Your task to perform on an android device: turn on priority inbox in the gmail app Image 0: 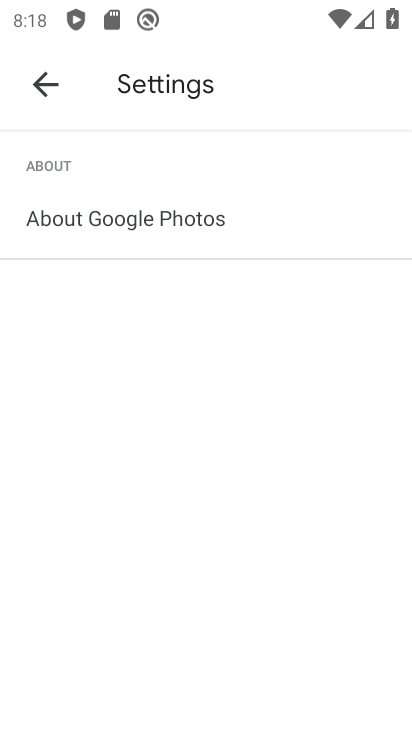
Step 0: press home button
Your task to perform on an android device: turn on priority inbox in the gmail app Image 1: 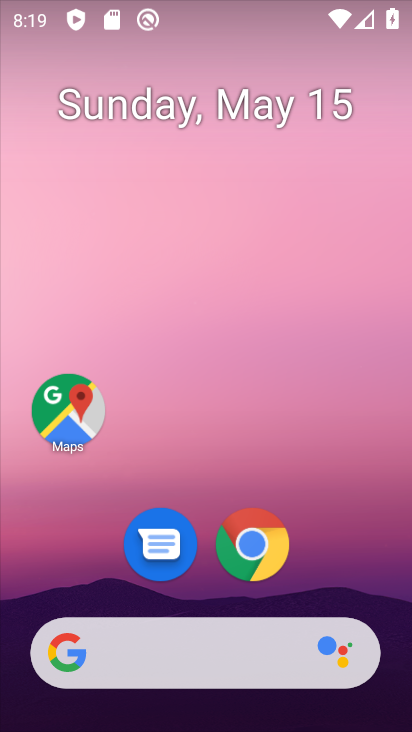
Step 1: drag from (321, 585) to (318, 181)
Your task to perform on an android device: turn on priority inbox in the gmail app Image 2: 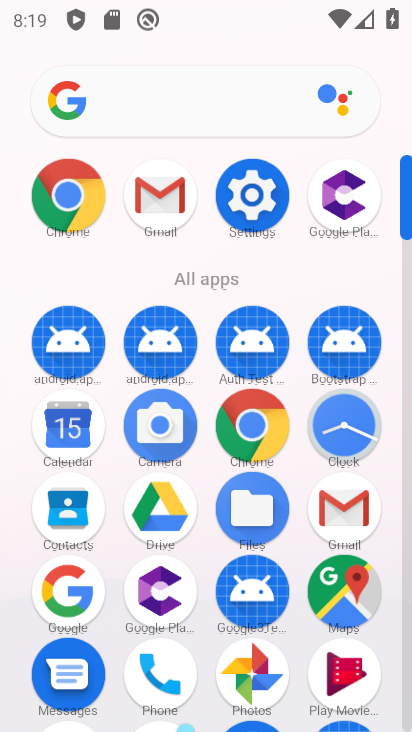
Step 2: click (344, 503)
Your task to perform on an android device: turn on priority inbox in the gmail app Image 3: 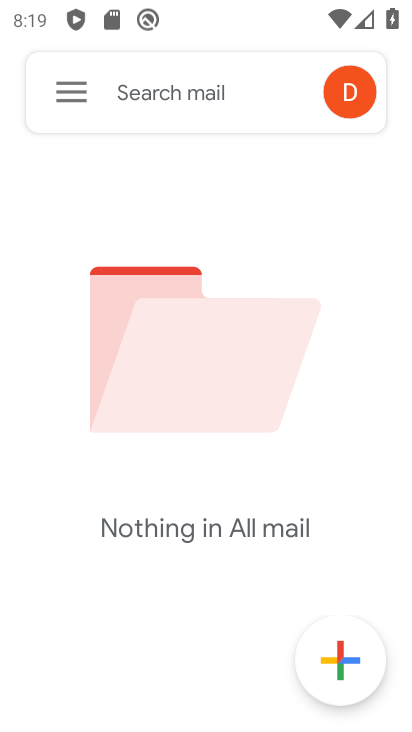
Step 3: click (69, 103)
Your task to perform on an android device: turn on priority inbox in the gmail app Image 4: 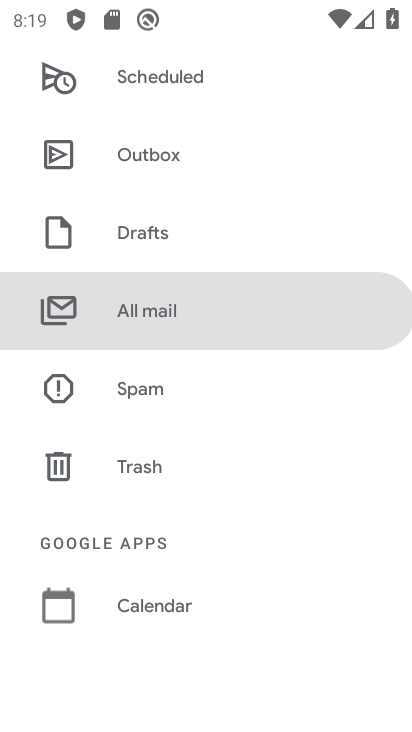
Step 4: drag from (183, 594) to (165, 402)
Your task to perform on an android device: turn on priority inbox in the gmail app Image 5: 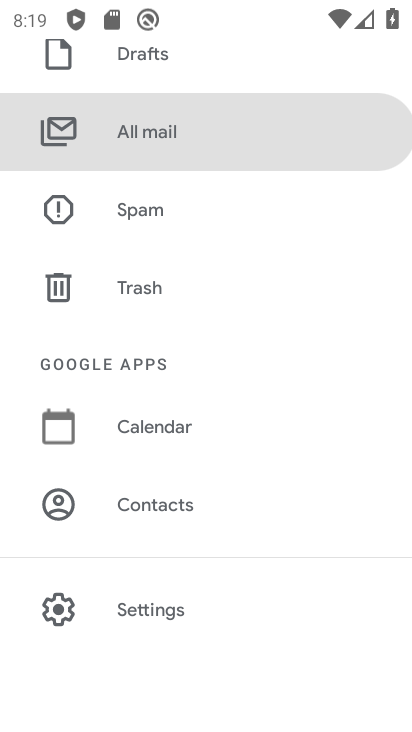
Step 5: click (152, 608)
Your task to perform on an android device: turn on priority inbox in the gmail app Image 6: 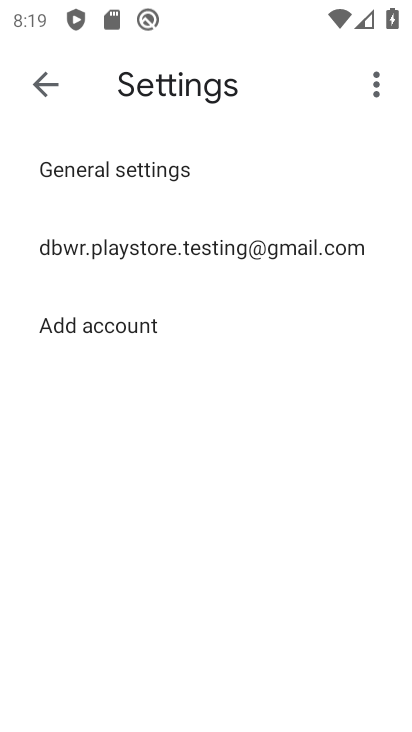
Step 6: click (167, 257)
Your task to perform on an android device: turn on priority inbox in the gmail app Image 7: 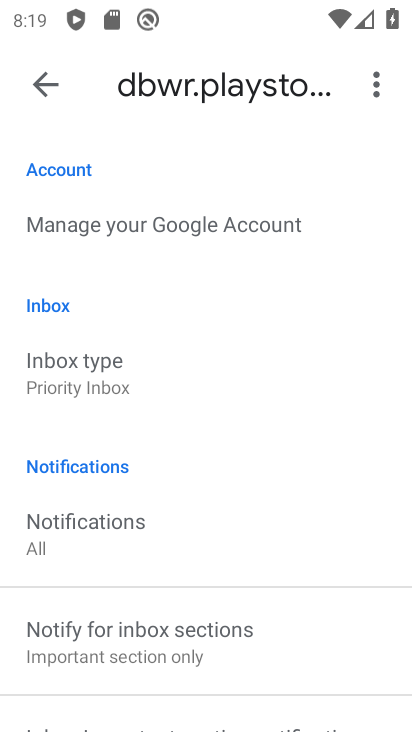
Step 7: click (69, 379)
Your task to perform on an android device: turn on priority inbox in the gmail app Image 8: 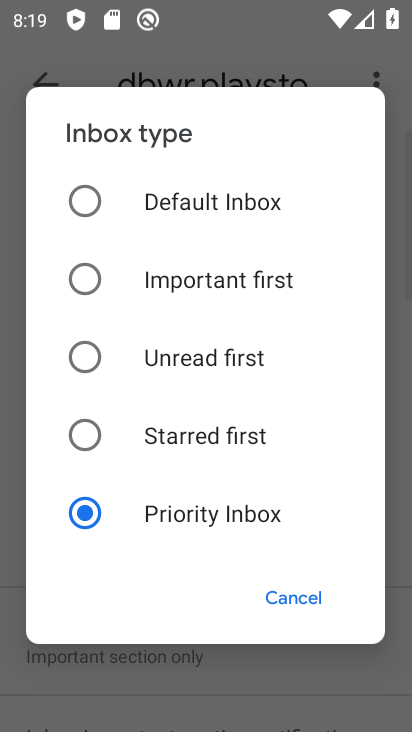
Step 8: click (178, 522)
Your task to perform on an android device: turn on priority inbox in the gmail app Image 9: 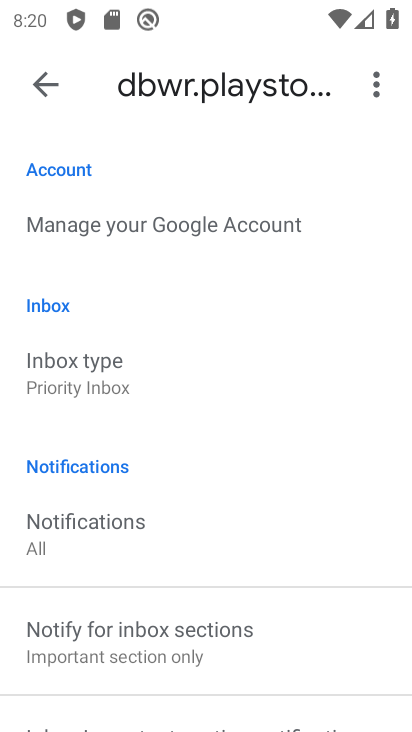
Step 9: task complete